Your task to perform on an android device: Open Chrome and go to settings Image 0: 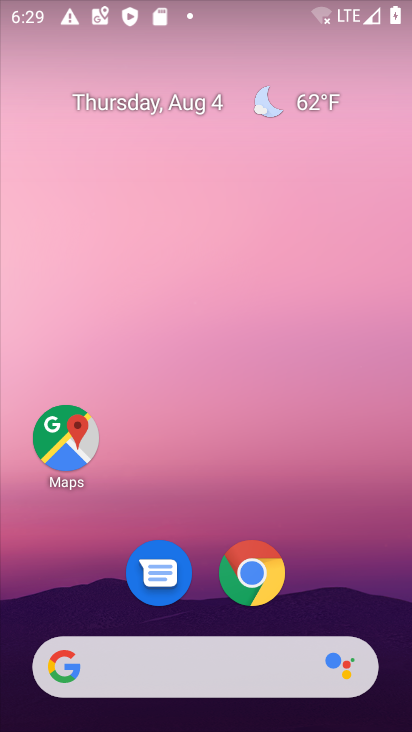
Step 0: press home button
Your task to perform on an android device: Open Chrome and go to settings Image 1: 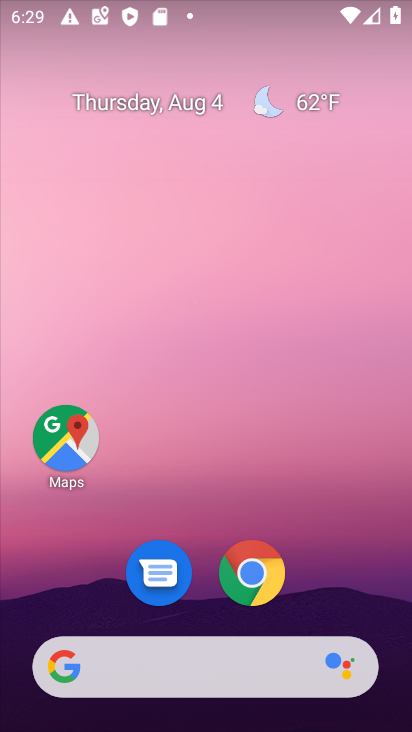
Step 1: drag from (209, 604) to (226, 190)
Your task to perform on an android device: Open Chrome and go to settings Image 2: 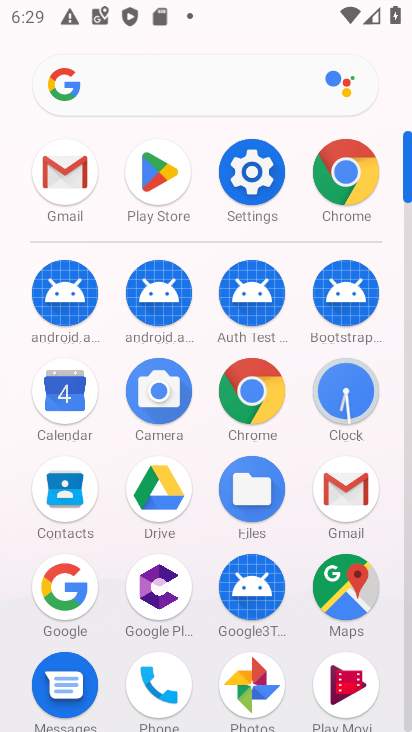
Step 2: click (351, 165)
Your task to perform on an android device: Open Chrome and go to settings Image 3: 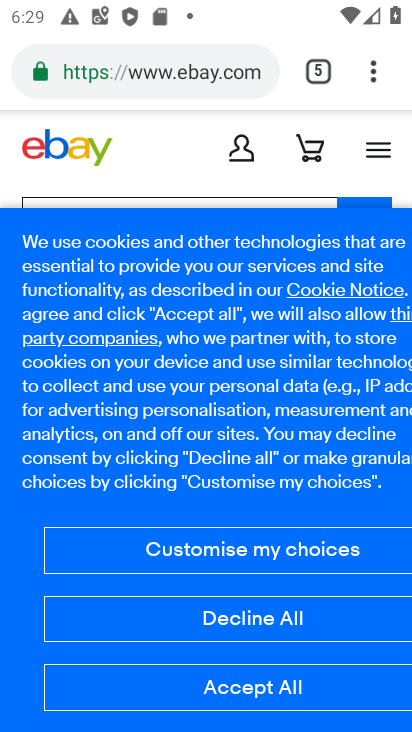
Step 3: task complete